Your task to perform on an android device: change your default location settings in chrome Image 0: 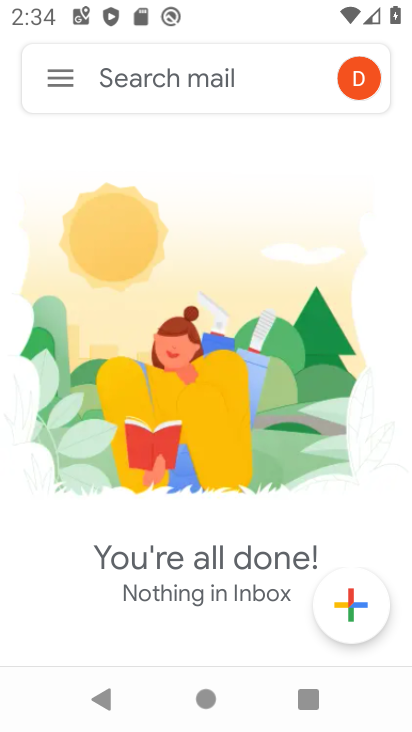
Step 0: press home button
Your task to perform on an android device: change your default location settings in chrome Image 1: 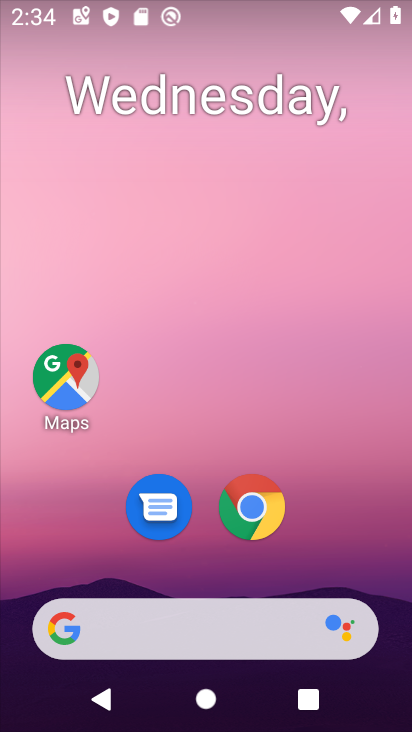
Step 1: click (251, 508)
Your task to perform on an android device: change your default location settings in chrome Image 2: 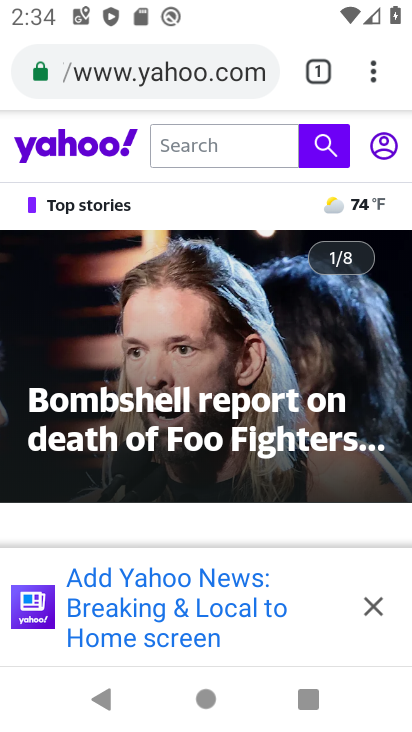
Step 2: click (366, 71)
Your task to perform on an android device: change your default location settings in chrome Image 3: 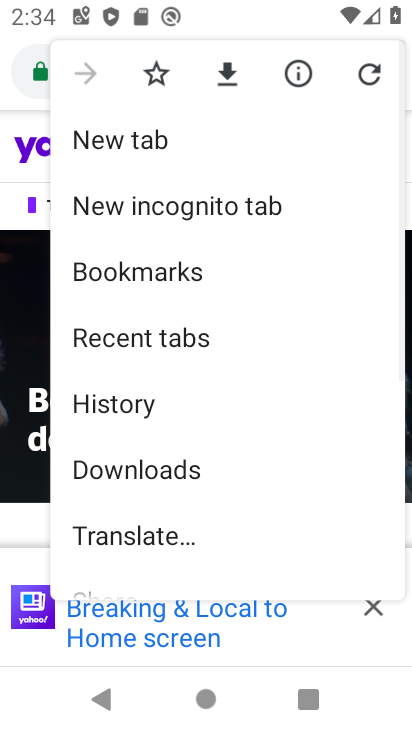
Step 3: drag from (251, 480) to (282, 136)
Your task to perform on an android device: change your default location settings in chrome Image 4: 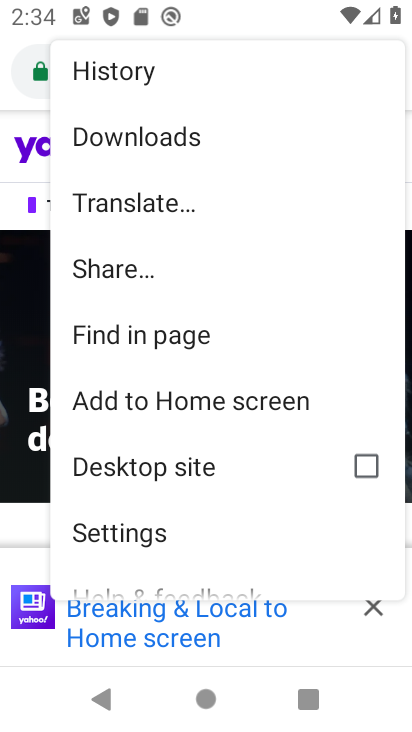
Step 4: click (170, 529)
Your task to perform on an android device: change your default location settings in chrome Image 5: 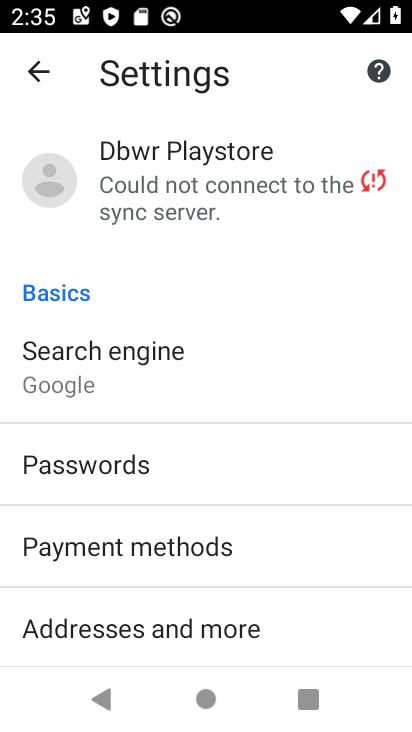
Step 5: drag from (255, 537) to (283, 162)
Your task to perform on an android device: change your default location settings in chrome Image 6: 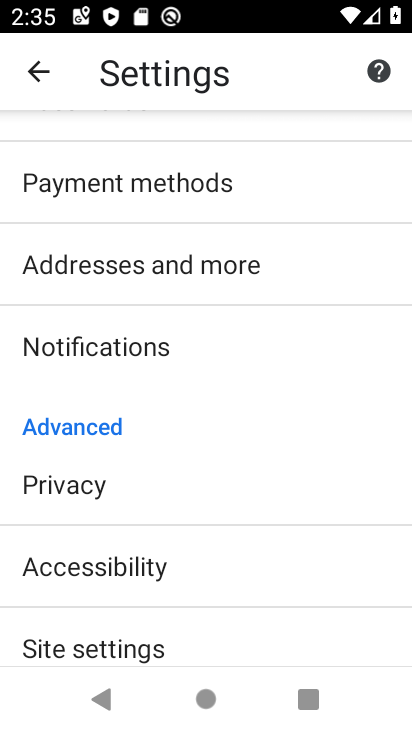
Step 6: drag from (294, 521) to (362, 94)
Your task to perform on an android device: change your default location settings in chrome Image 7: 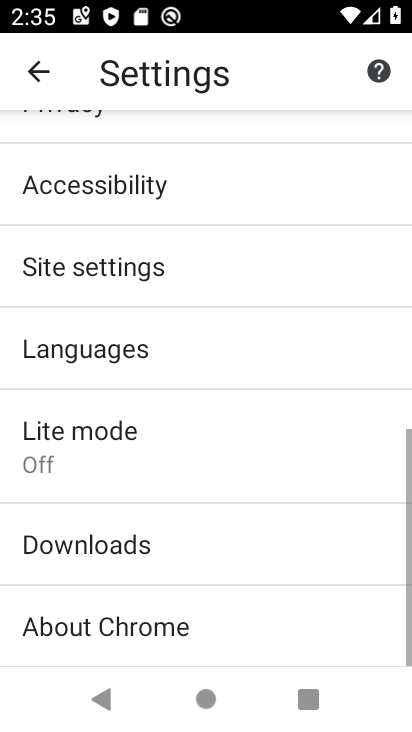
Step 7: drag from (245, 447) to (276, 111)
Your task to perform on an android device: change your default location settings in chrome Image 8: 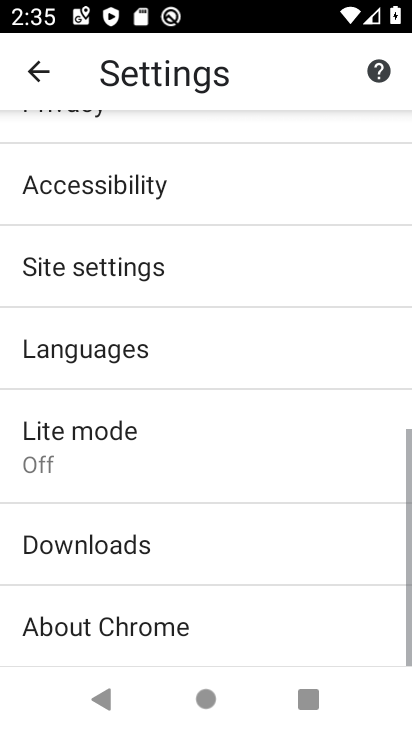
Step 8: click (225, 245)
Your task to perform on an android device: change your default location settings in chrome Image 9: 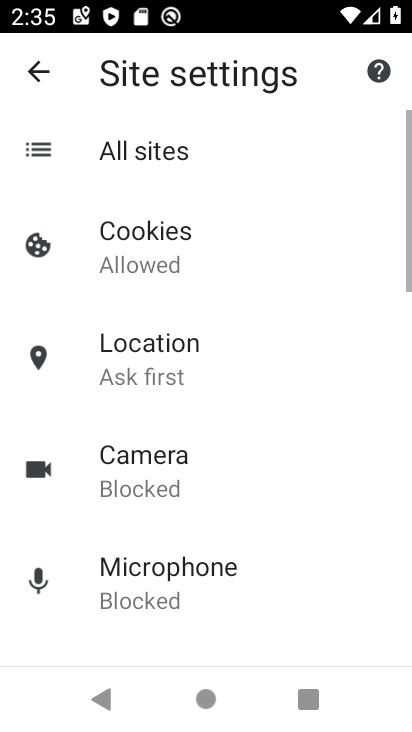
Step 9: drag from (273, 368) to (280, 74)
Your task to perform on an android device: change your default location settings in chrome Image 10: 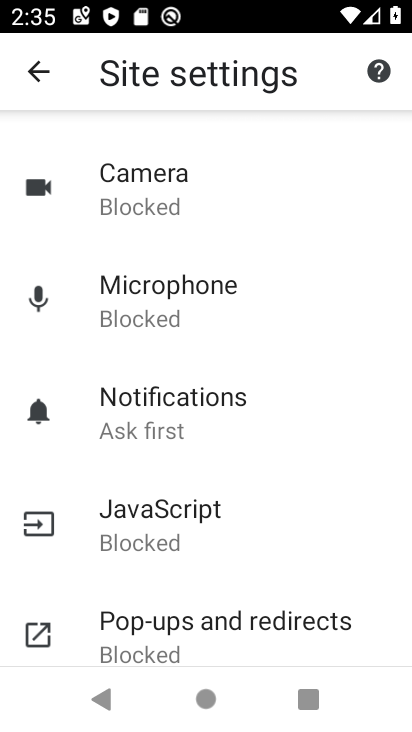
Step 10: drag from (259, 528) to (297, 146)
Your task to perform on an android device: change your default location settings in chrome Image 11: 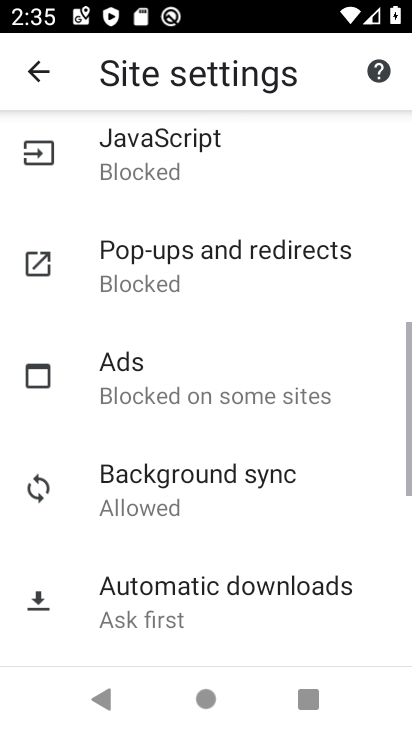
Step 11: drag from (234, 533) to (204, 144)
Your task to perform on an android device: change your default location settings in chrome Image 12: 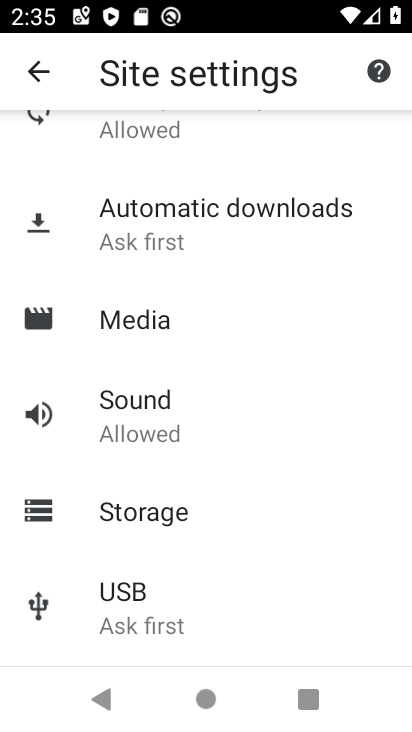
Step 12: drag from (301, 543) to (272, 103)
Your task to perform on an android device: change your default location settings in chrome Image 13: 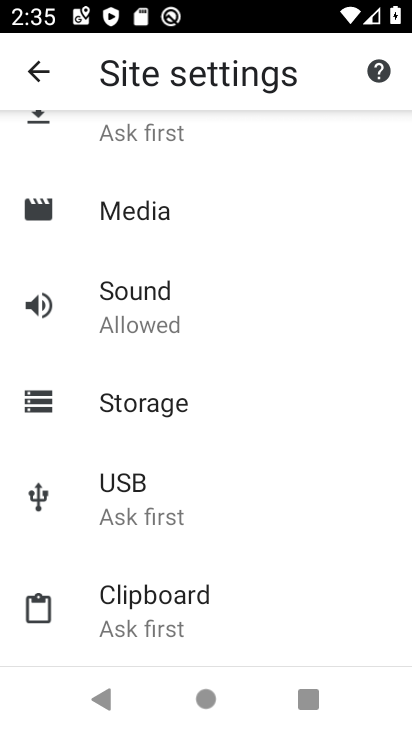
Step 13: drag from (240, 203) to (160, 651)
Your task to perform on an android device: change your default location settings in chrome Image 14: 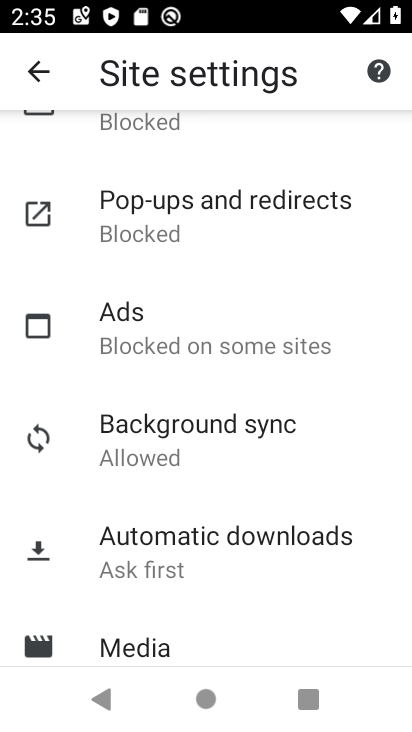
Step 14: drag from (354, 232) to (324, 606)
Your task to perform on an android device: change your default location settings in chrome Image 15: 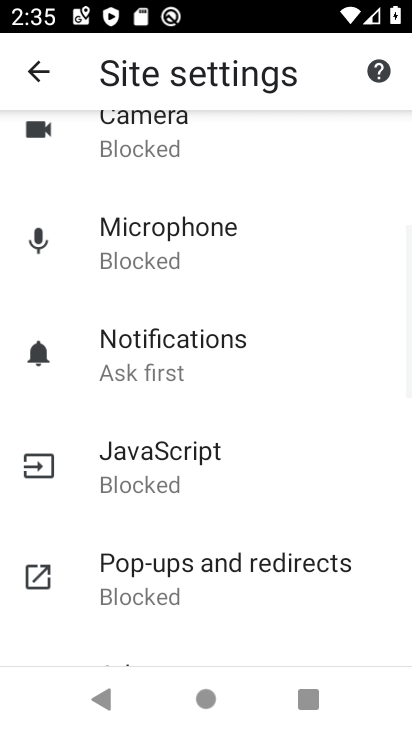
Step 15: drag from (289, 206) to (285, 609)
Your task to perform on an android device: change your default location settings in chrome Image 16: 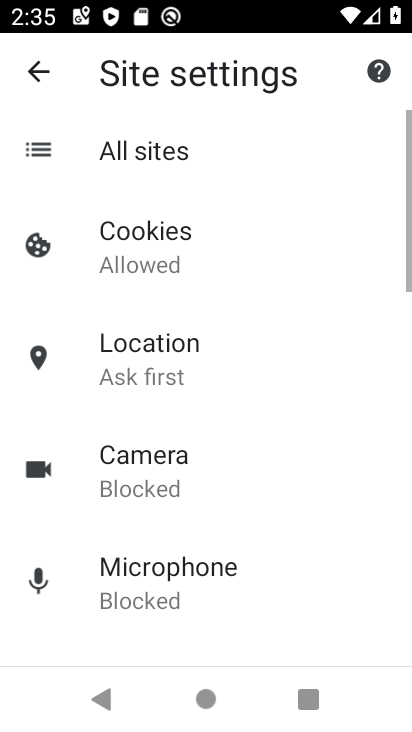
Step 16: drag from (252, 255) to (299, 581)
Your task to perform on an android device: change your default location settings in chrome Image 17: 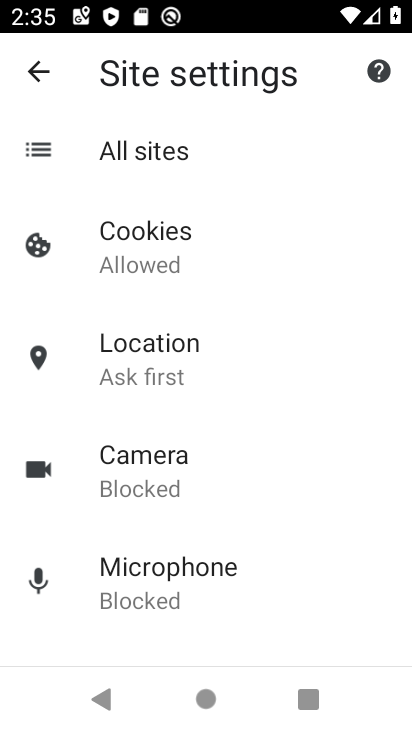
Step 17: press home button
Your task to perform on an android device: change your default location settings in chrome Image 18: 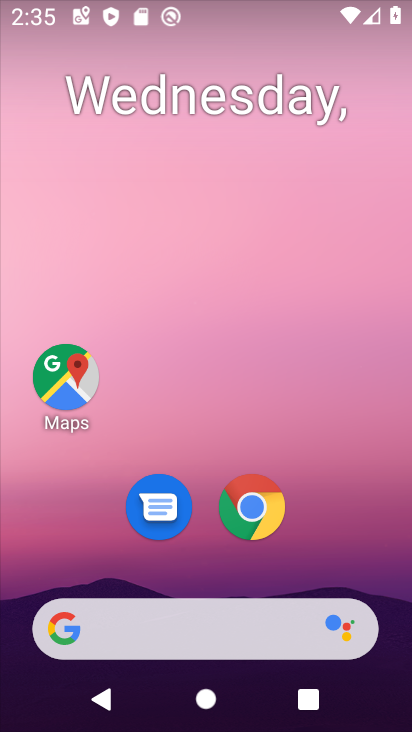
Step 18: drag from (311, 522) to (374, 119)
Your task to perform on an android device: change your default location settings in chrome Image 19: 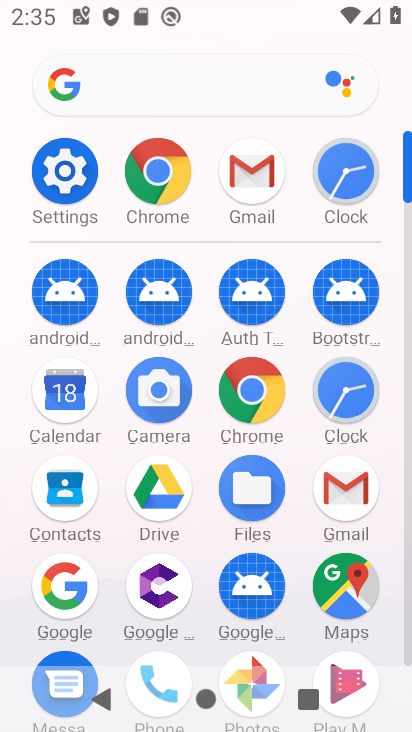
Step 19: click (56, 176)
Your task to perform on an android device: change your default location settings in chrome Image 20: 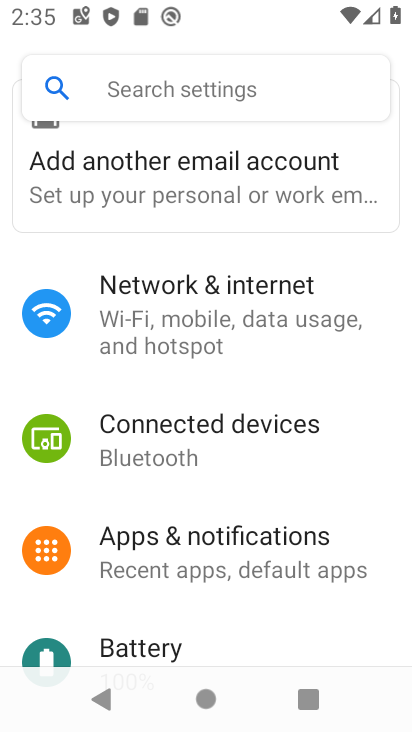
Step 20: drag from (256, 584) to (302, 254)
Your task to perform on an android device: change your default location settings in chrome Image 21: 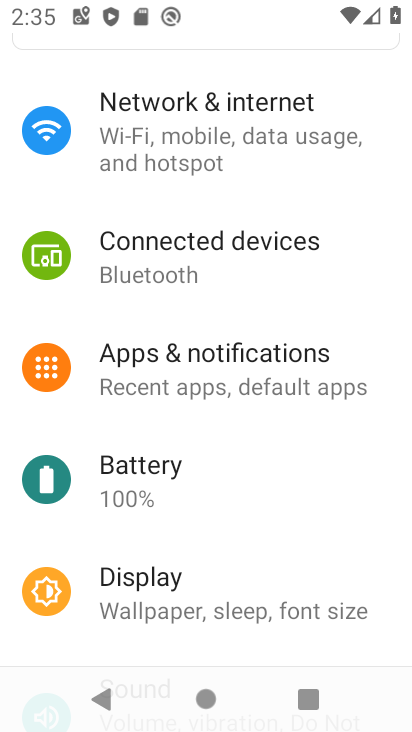
Step 21: drag from (243, 547) to (285, 261)
Your task to perform on an android device: change your default location settings in chrome Image 22: 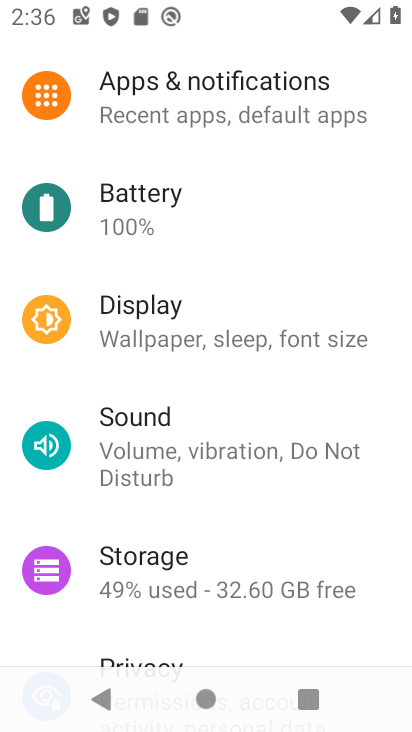
Step 22: drag from (283, 479) to (275, 262)
Your task to perform on an android device: change your default location settings in chrome Image 23: 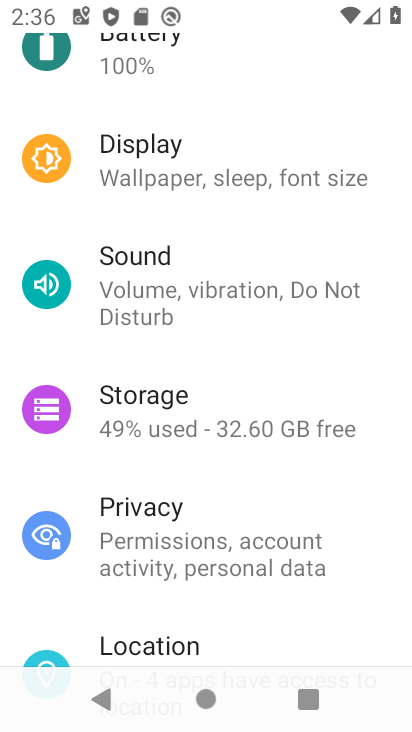
Step 23: click (263, 639)
Your task to perform on an android device: change your default location settings in chrome Image 24: 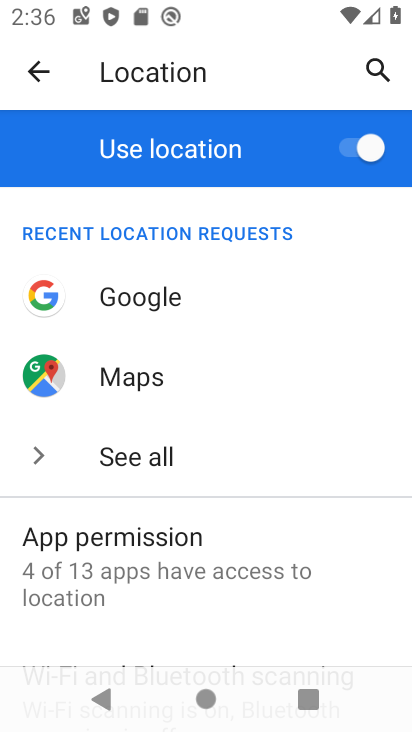
Step 24: click (374, 148)
Your task to perform on an android device: change your default location settings in chrome Image 25: 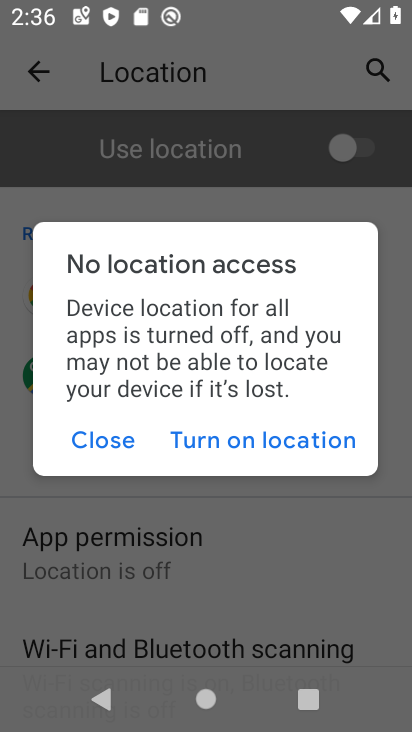
Step 25: click (106, 432)
Your task to perform on an android device: change your default location settings in chrome Image 26: 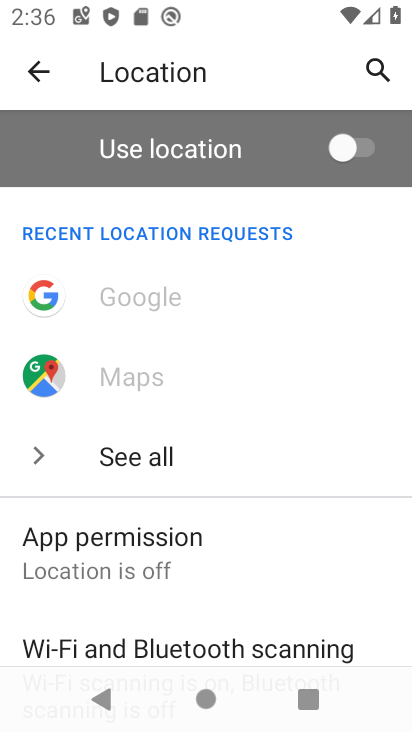
Step 26: task complete